Your task to perform on an android device: Go to Google maps Image 0: 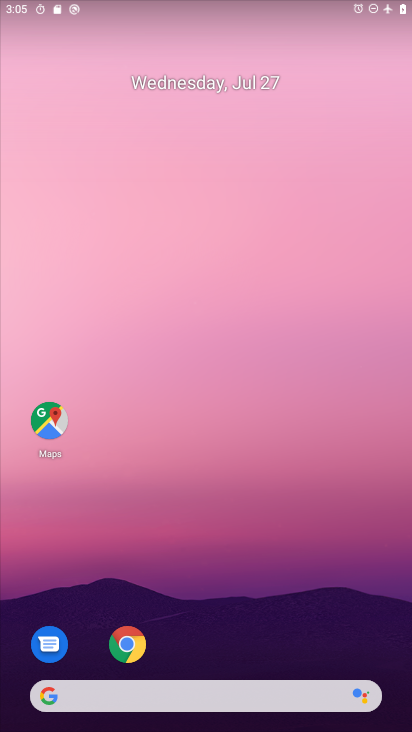
Step 0: drag from (217, 661) to (191, 142)
Your task to perform on an android device: Go to Google maps Image 1: 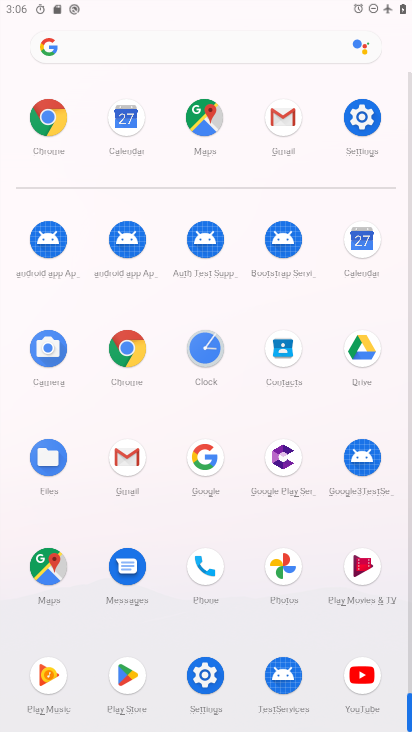
Step 1: click (35, 569)
Your task to perform on an android device: Go to Google maps Image 2: 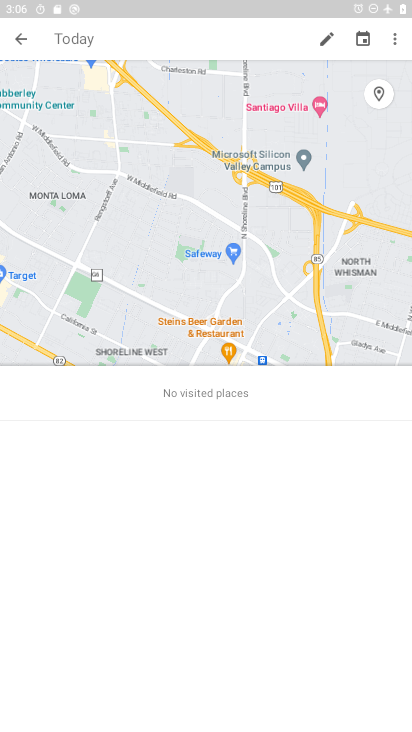
Step 2: task complete